Your task to perform on an android device: Search for a new skincare product Image 0: 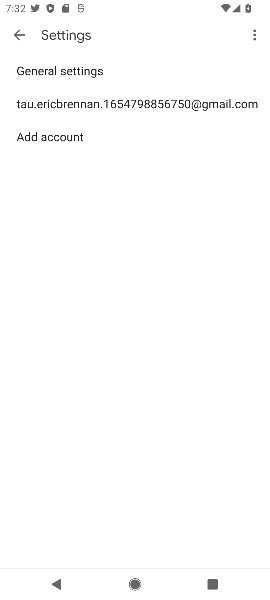
Step 0: press home button
Your task to perform on an android device: Search for a new skincare product Image 1: 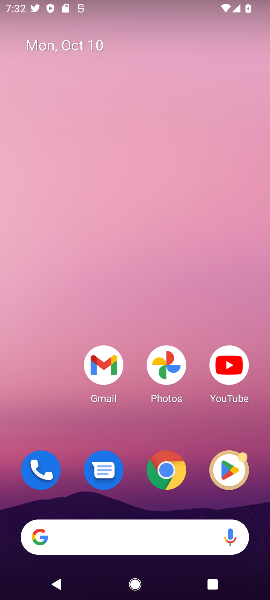
Step 1: click (135, 518)
Your task to perform on an android device: Search for a new skincare product Image 2: 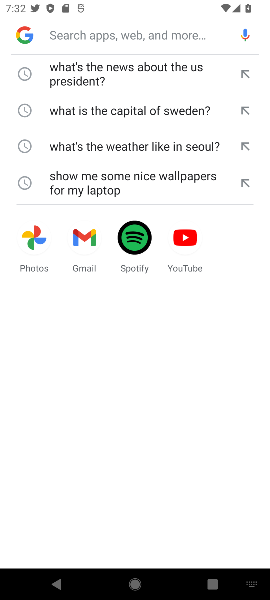
Step 2: click (130, 532)
Your task to perform on an android device: Search for a new skincare product Image 3: 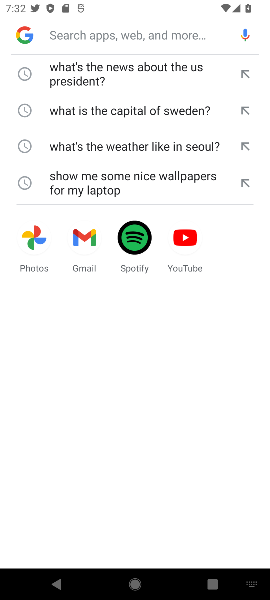
Step 3: type "Search for a new skincare product"
Your task to perform on an android device: Search for a new skincare product Image 4: 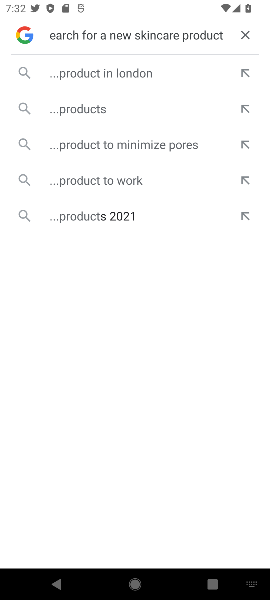
Step 4: click (52, 108)
Your task to perform on an android device: Search for a new skincare product Image 5: 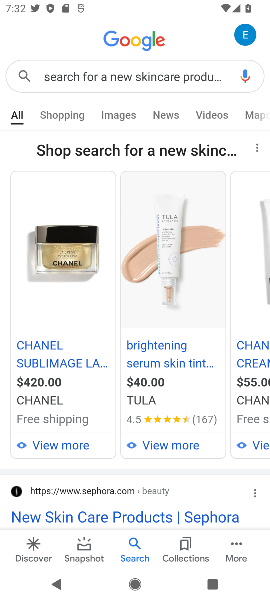
Step 5: task complete